Your task to perform on an android device: Open my contact list Image 0: 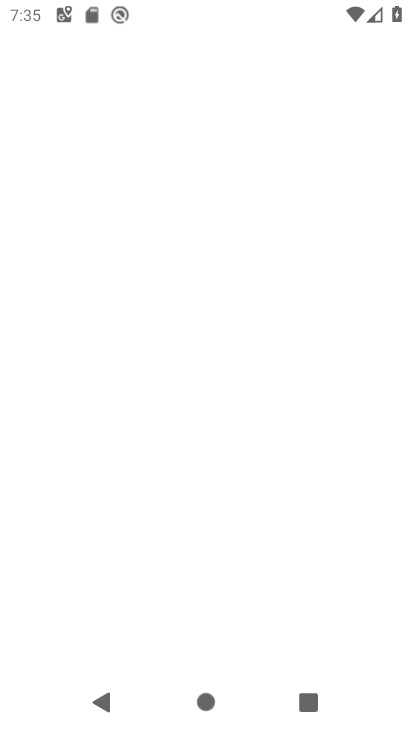
Step 0: drag from (382, 545) to (344, 184)
Your task to perform on an android device: Open my contact list Image 1: 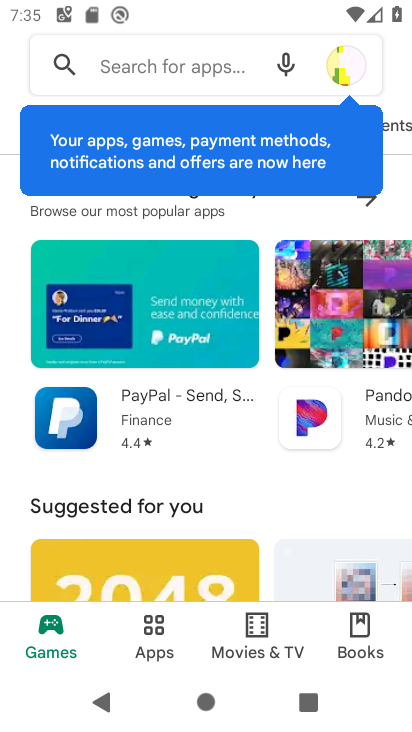
Step 1: press home button
Your task to perform on an android device: Open my contact list Image 2: 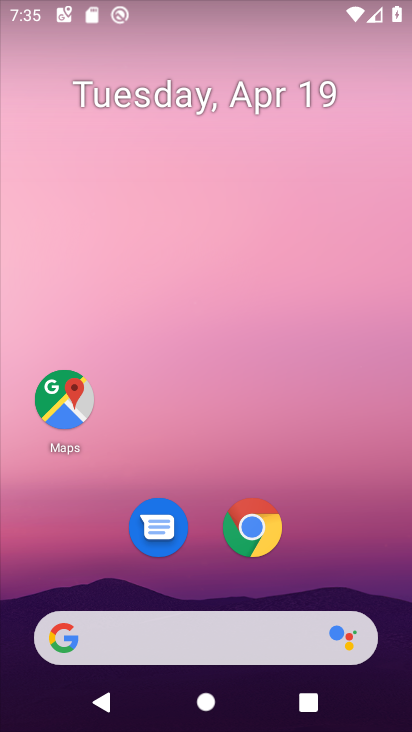
Step 2: drag from (363, 554) to (375, 87)
Your task to perform on an android device: Open my contact list Image 3: 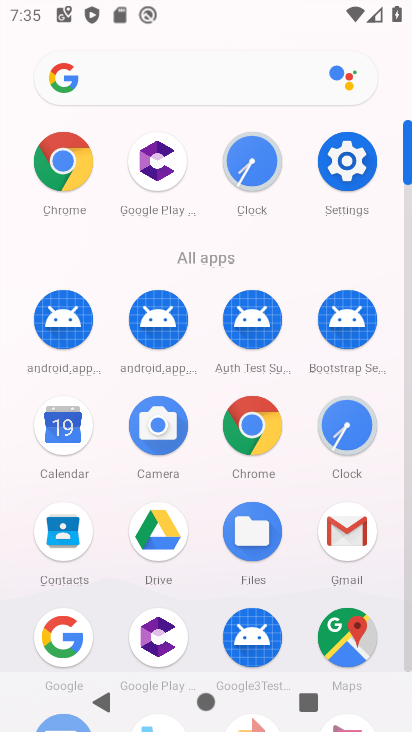
Step 3: click (64, 529)
Your task to perform on an android device: Open my contact list Image 4: 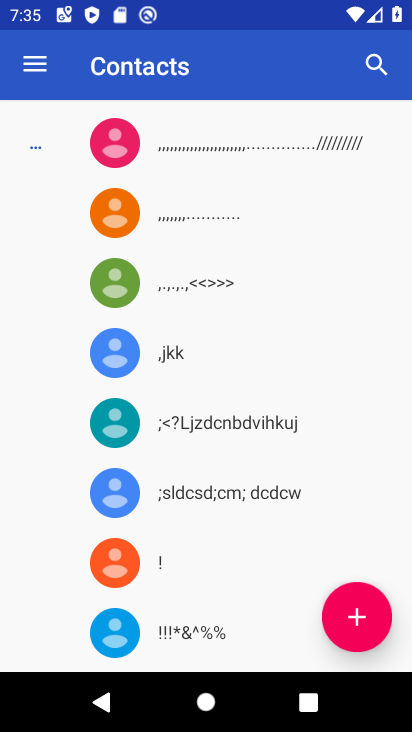
Step 4: task complete